Your task to perform on an android device: Do I have any events today? Image 0: 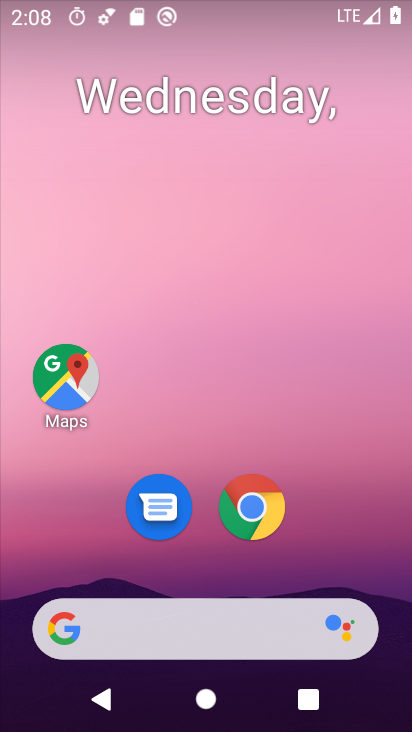
Step 0: drag from (307, 544) to (327, 29)
Your task to perform on an android device: Do I have any events today? Image 1: 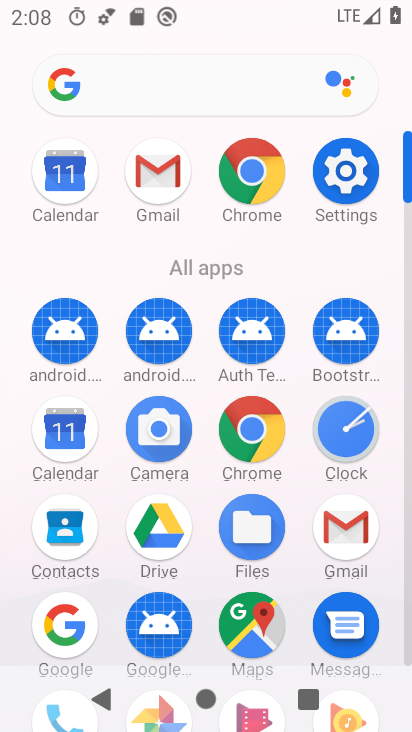
Step 1: click (56, 439)
Your task to perform on an android device: Do I have any events today? Image 2: 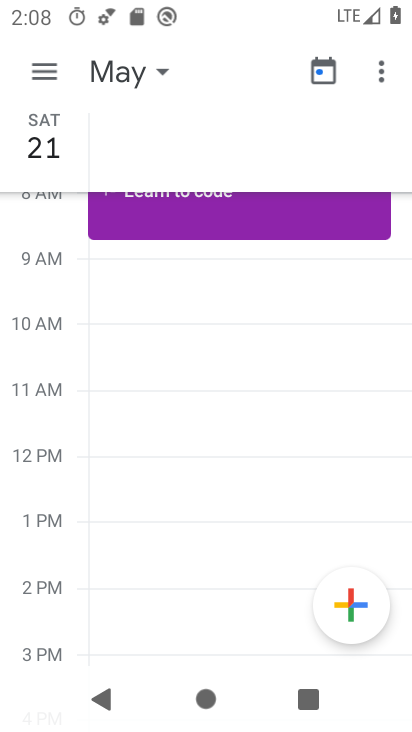
Step 2: click (119, 64)
Your task to perform on an android device: Do I have any events today? Image 3: 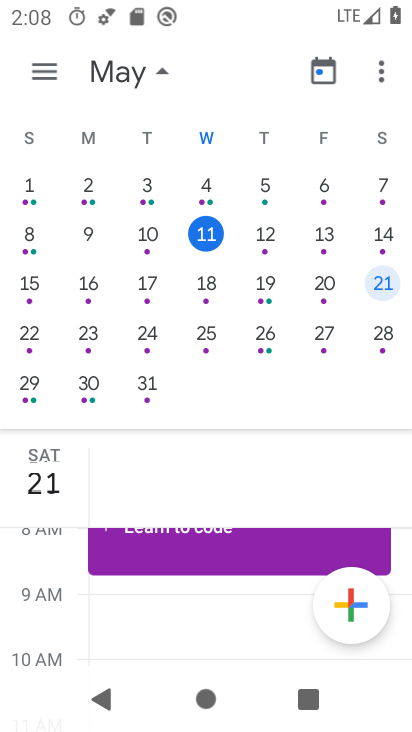
Step 3: click (197, 233)
Your task to perform on an android device: Do I have any events today? Image 4: 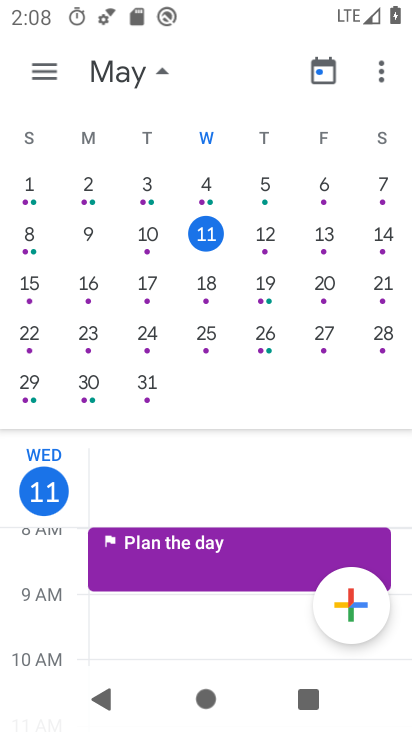
Step 4: task complete